Your task to perform on an android device: read, delete, or share a saved page in the chrome app Image 0: 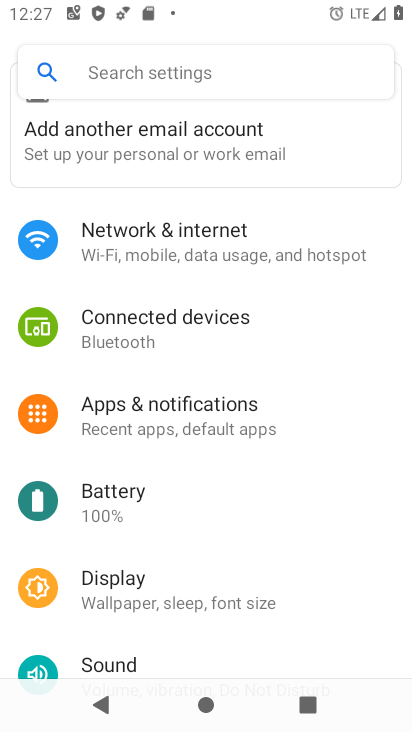
Step 0: press home button
Your task to perform on an android device: read, delete, or share a saved page in the chrome app Image 1: 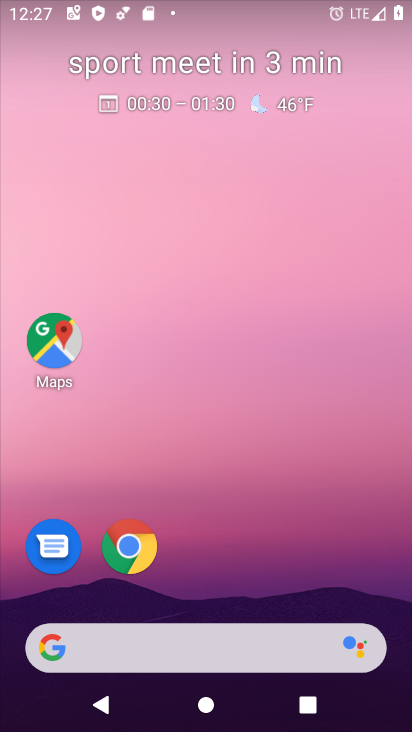
Step 1: click (135, 548)
Your task to perform on an android device: read, delete, or share a saved page in the chrome app Image 2: 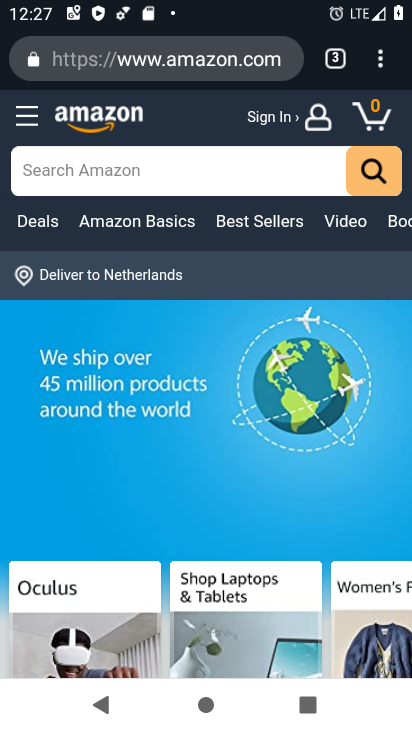
Step 2: drag from (383, 59) to (161, 389)
Your task to perform on an android device: read, delete, or share a saved page in the chrome app Image 3: 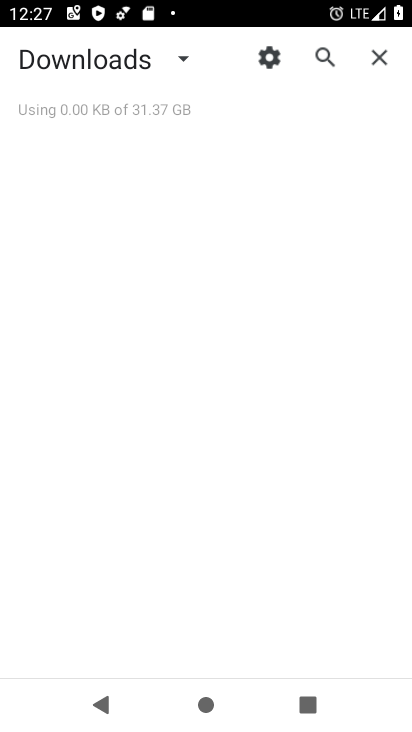
Step 3: click (183, 59)
Your task to perform on an android device: read, delete, or share a saved page in the chrome app Image 4: 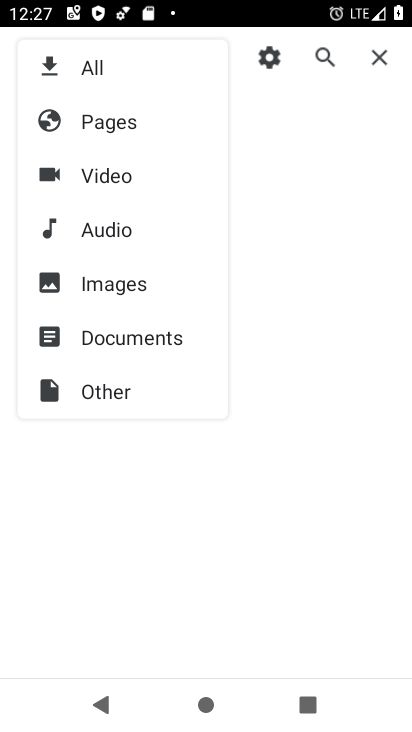
Step 4: click (119, 129)
Your task to perform on an android device: read, delete, or share a saved page in the chrome app Image 5: 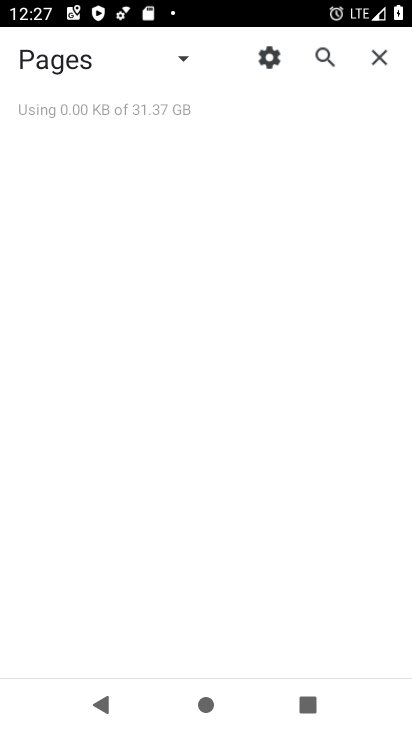
Step 5: task complete